Your task to perform on an android device: turn off sleep mode Image 0: 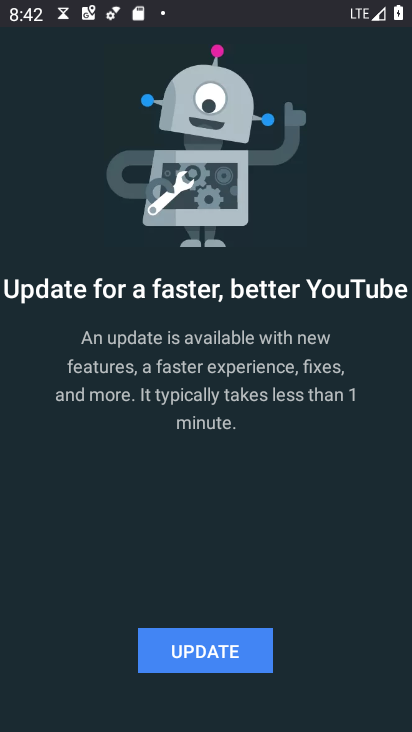
Step 0: press home button
Your task to perform on an android device: turn off sleep mode Image 1: 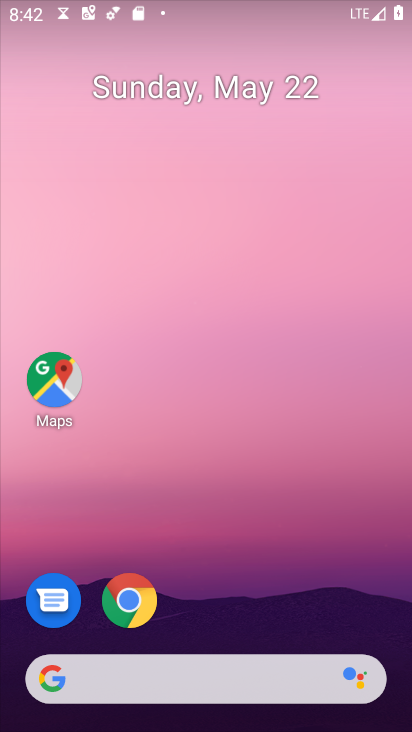
Step 1: drag from (165, 639) to (163, 394)
Your task to perform on an android device: turn off sleep mode Image 2: 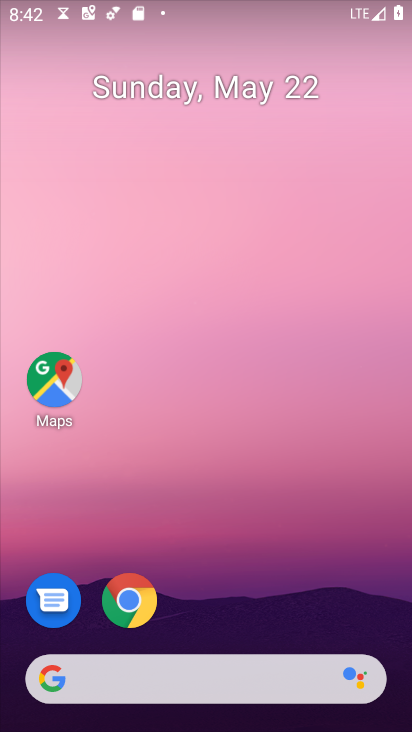
Step 2: drag from (186, 638) to (211, 278)
Your task to perform on an android device: turn off sleep mode Image 3: 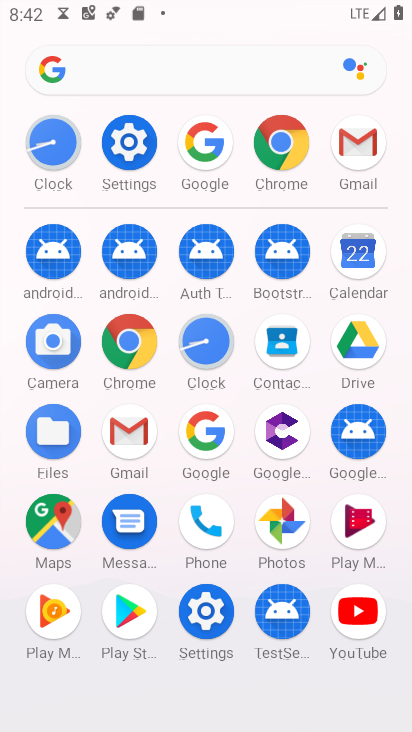
Step 3: click (122, 141)
Your task to perform on an android device: turn off sleep mode Image 4: 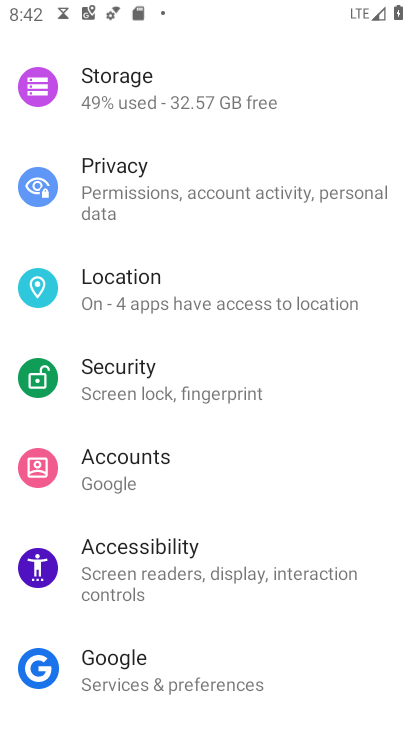
Step 4: drag from (193, 177) to (216, 606)
Your task to perform on an android device: turn off sleep mode Image 5: 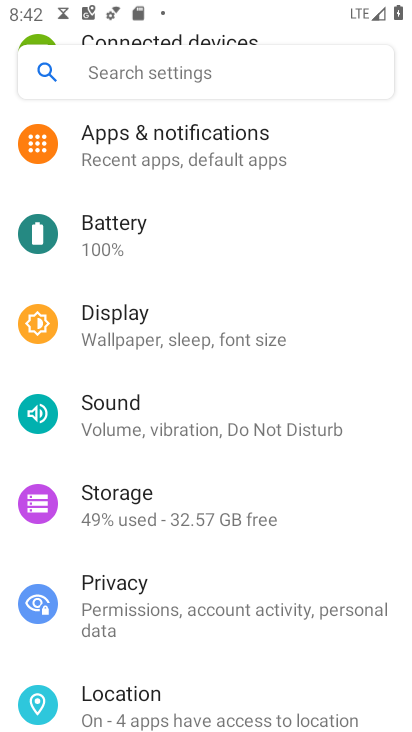
Step 5: click (168, 336)
Your task to perform on an android device: turn off sleep mode Image 6: 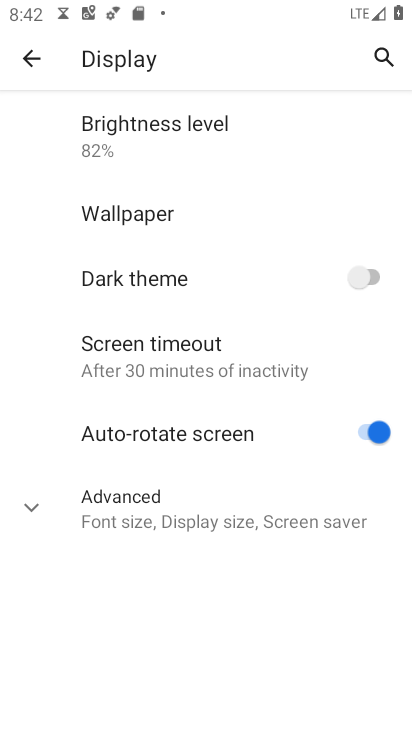
Step 6: click (132, 370)
Your task to perform on an android device: turn off sleep mode Image 7: 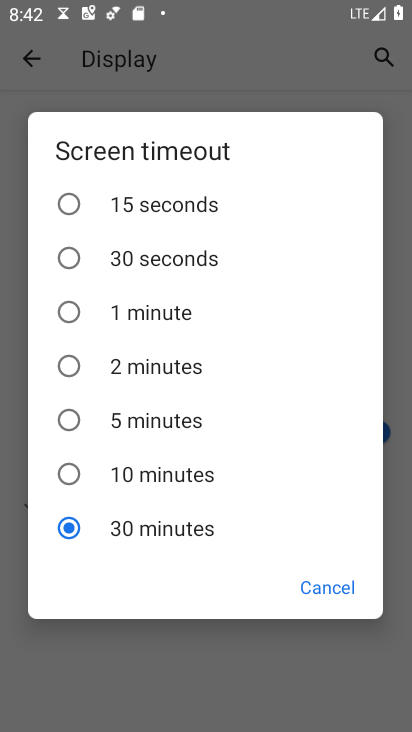
Step 7: click (119, 220)
Your task to perform on an android device: turn off sleep mode Image 8: 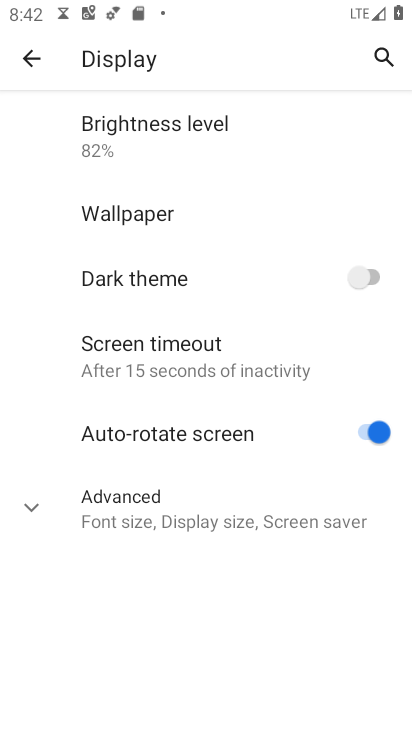
Step 8: task complete